Your task to perform on an android device: refresh tabs in the chrome app Image 0: 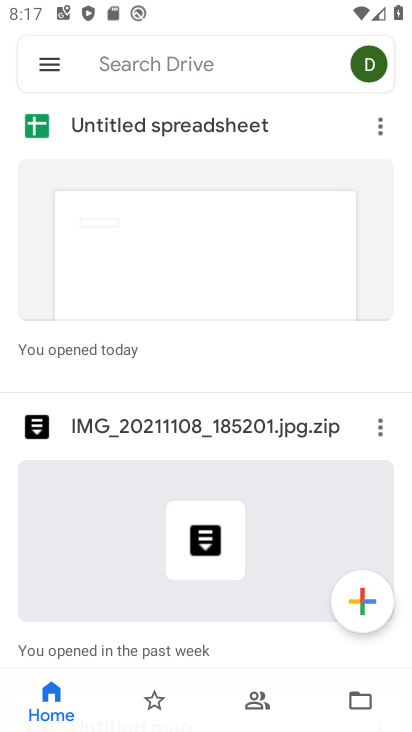
Step 0: press home button
Your task to perform on an android device: refresh tabs in the chrome app Image 1: 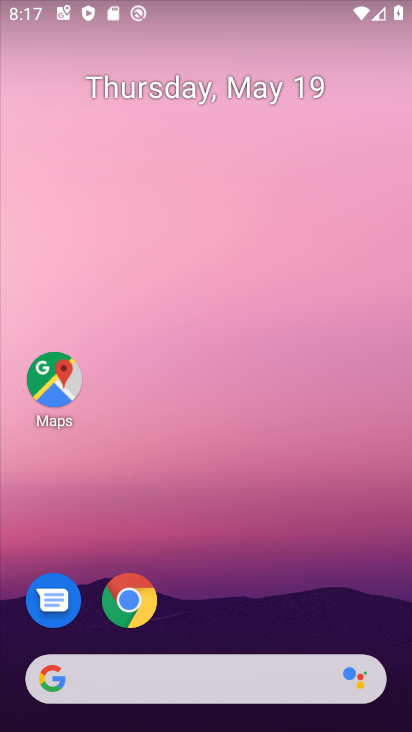
Step 1: click (122, 601)
Your task to perform on an android device: refresh tabs in the chrome app Image 2: 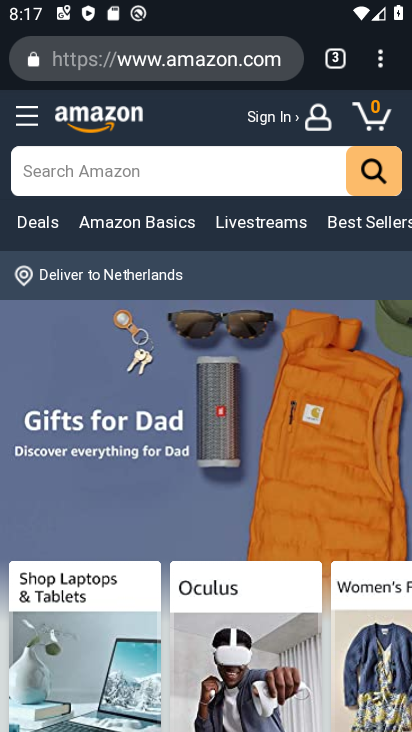
Step 2: click (387, 61)
Your task to perform on an android device: refresh tabs in the chrome app Image 3: 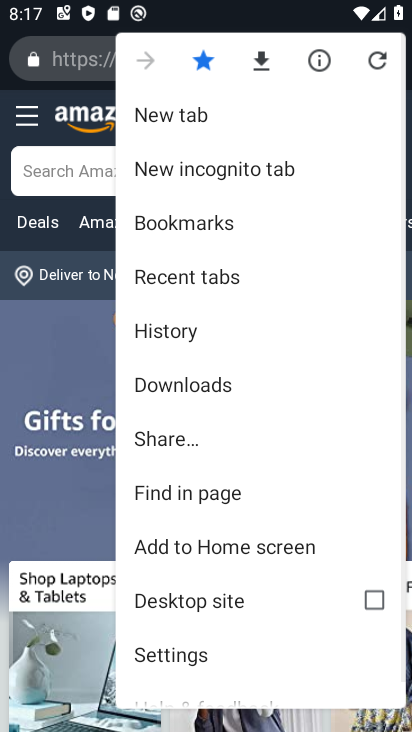
Step 3: click (379, 60)
Your task to perform on an android device: refresh tabs in the chrome app Image 4: 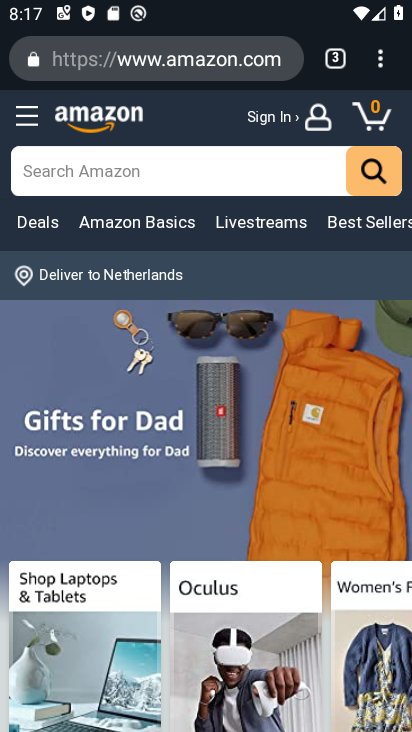
Step 4: task complete